Your task to perform on an android device: What is the news today? Image 0: 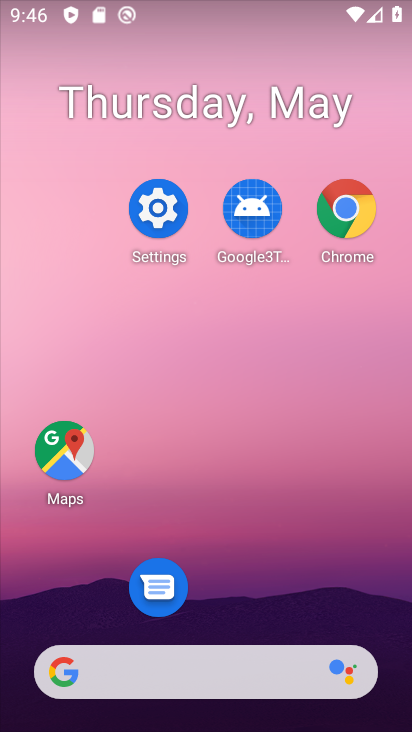
Step 0: click (223, 659)
Your task to perform on an android device: What is the news today? Image 1: 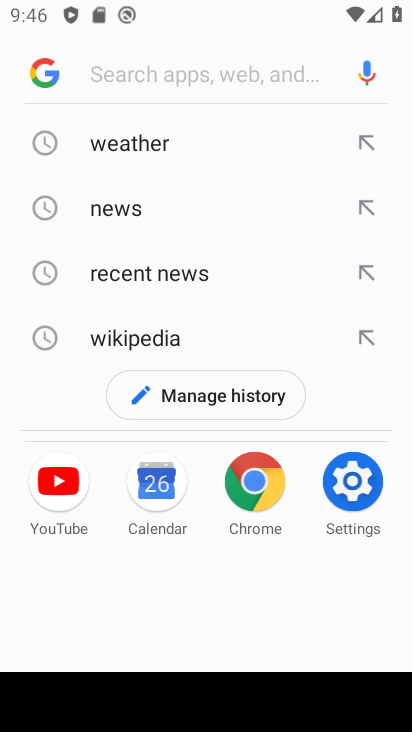
Step 1: type "news today"
Your task to perform on an android device: What is the news today? Image 2: 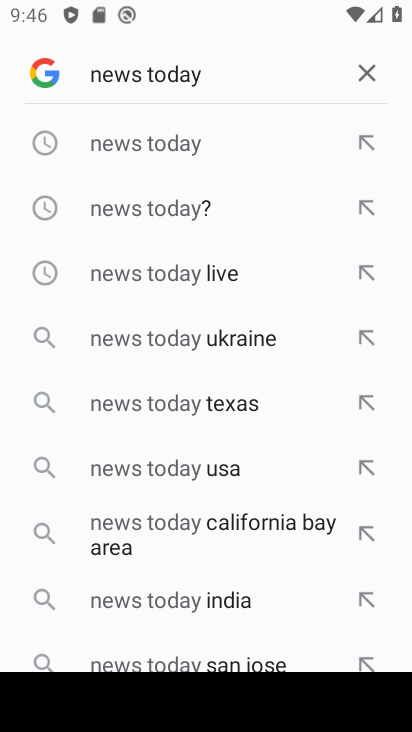
Step 2: click (186, 139)
Your task to perform on an android device: What is the news today? Image 3: 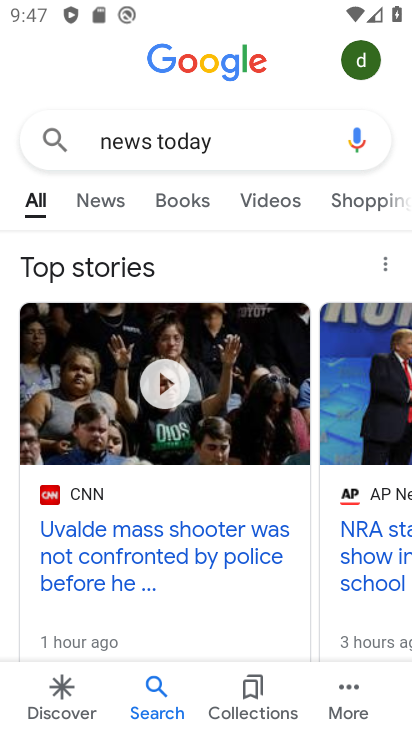
Step 3: task complete